Your task to perform on an android device: open chrome and create a bookmark for the current page Image 0: 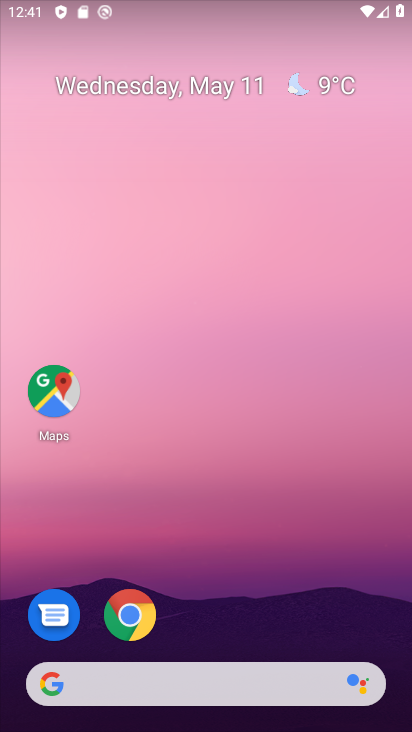
Step 0: click (124, 610)
Your task to perform on an android device: open chrome and create a bookmark for the current page Image 1: 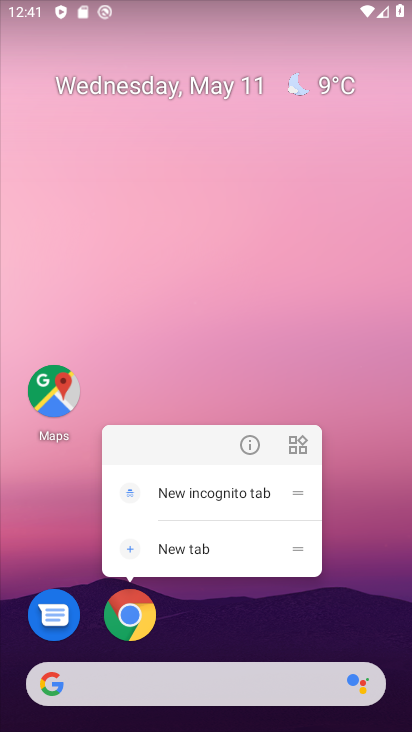
Step 1: click (233, 371)
Your task to perform on an android device: open chrome and create a bookmark for the current page Image 2: 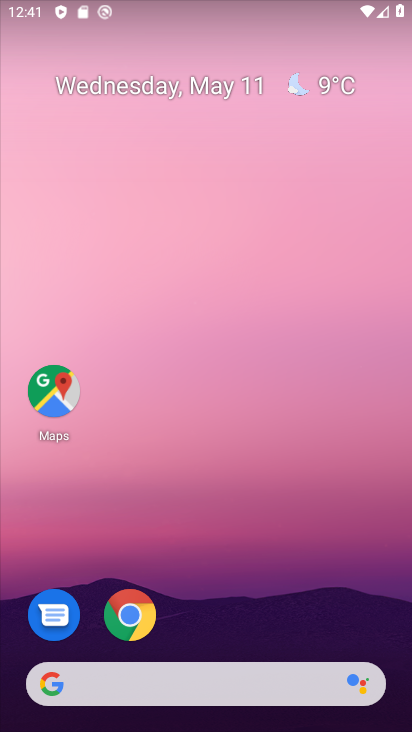
Step 2: click (133, 606)
Your task to perform on an android device: open chrome and create a bookmark for the current page Image 3: 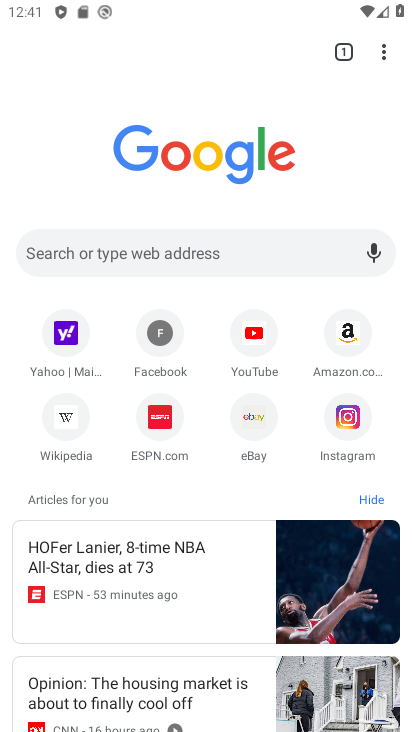
Step 3: click (334, 422)
Your task to perform on an android device: open chrome and create a bookmark for the current page Image 4: 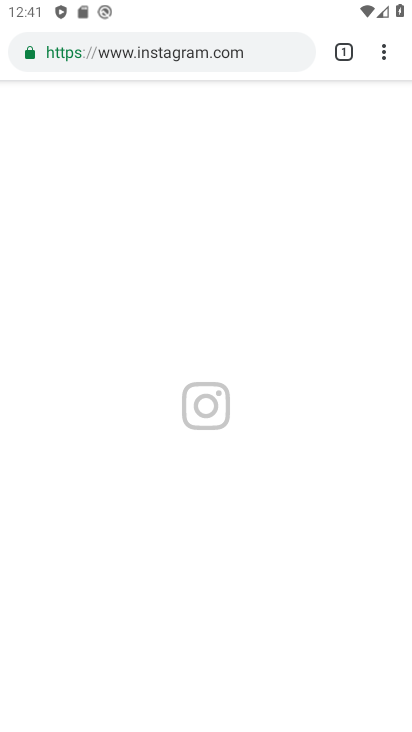
Step 4: click (374, 55)
Your task to perform on an android device: open chrome and create a bookmark for the current page Image 5: 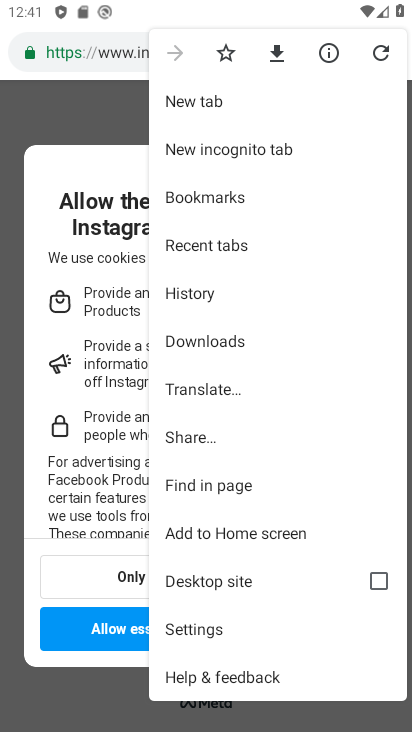
Step 5: click (228, 43)
Your task to perform on an android device: open chrome and create a bookmark for the current page Image 6: 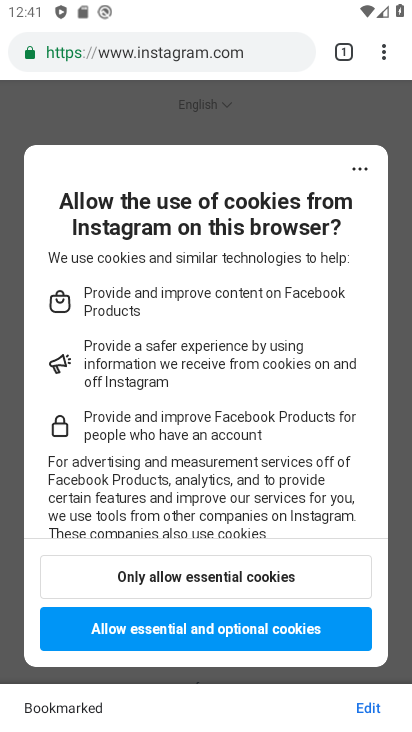
Step 6: task complete